Your task to perform on an android device: move a message to another label in the gmail app Image 0: 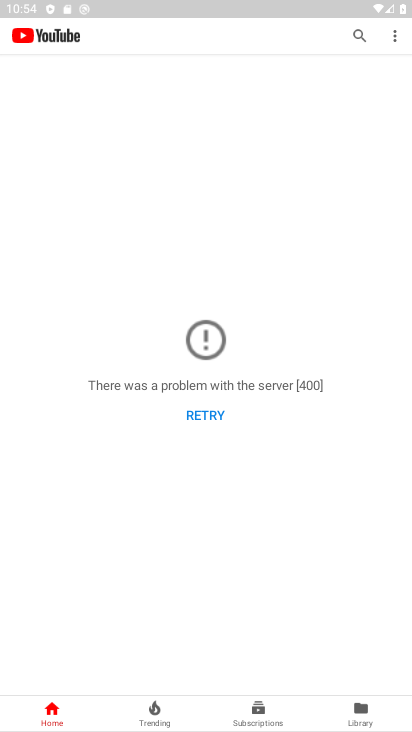
Step 0: press home button
Your task to perform on an android device: move a message to another label in the gmail app Image 1: 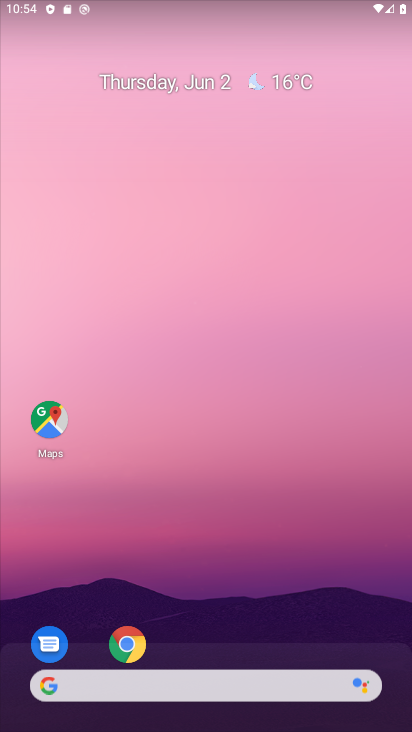
Step 1: drag from (209, 603) to (250, 90)
Your task to perform on an android device: move a message to another label in the gmail app Image 2: 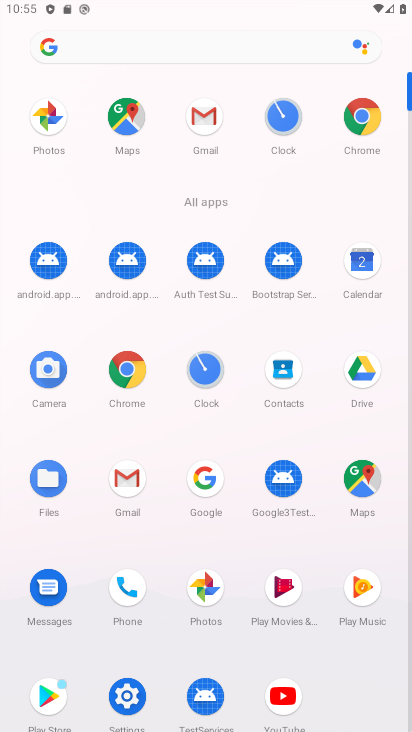
Step 2: click (203, 137)
Your task to perform on an android device: move a message to another label in the gmail app Image 3: 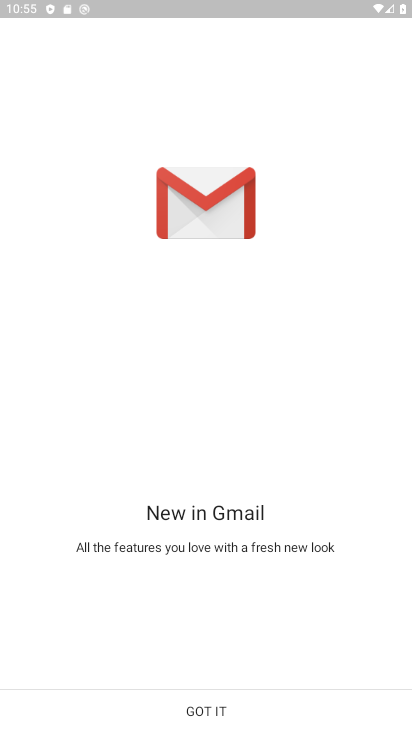
Step 3: click (203, 726)
Your task to perform on an android device: move a message to another label in the gmail app Image 4: 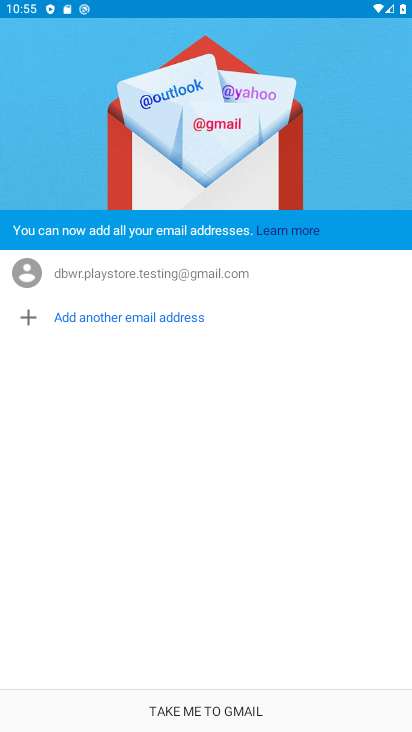
Step 4: click (213, 716)
Your task to perform on an android device: move a message to another label in the gmail app Image 5: 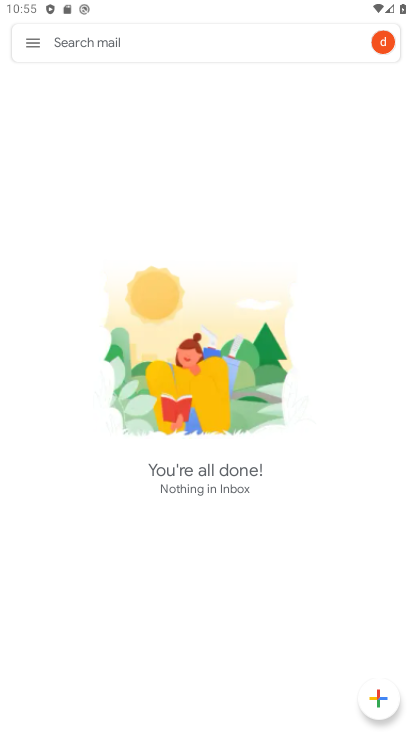
Step 5: click (28, 42)
Your task to perform on an android device: move a message to another label in the gmail app Image 6: 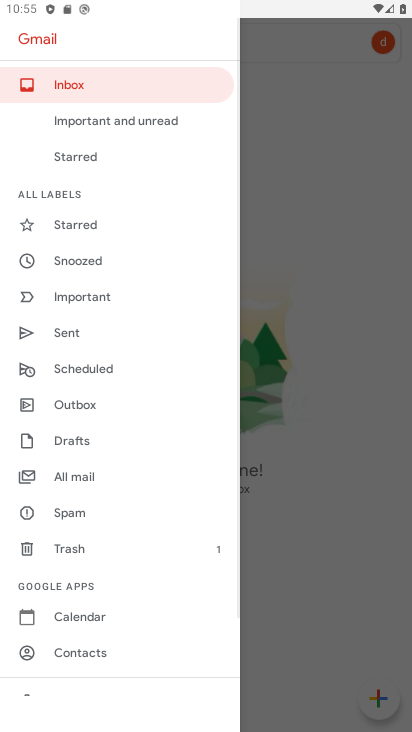
Step 6: click (66, 474)
Your task to perform on an android device: move a message to another label in the gmail app Image 7: 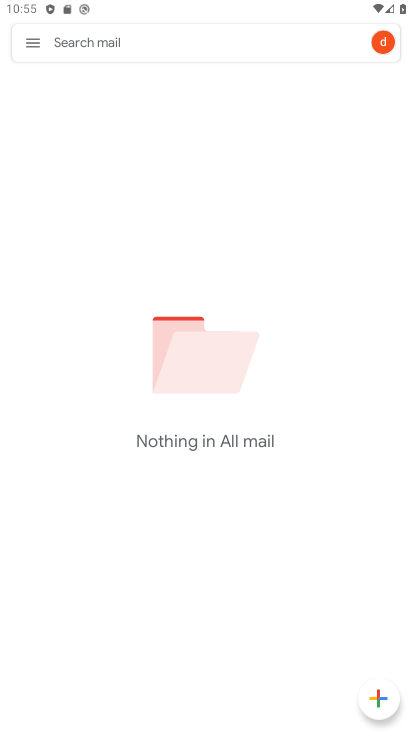
Step 7: task complete